Your task to perform on an android device: Open Android settings Image 0: 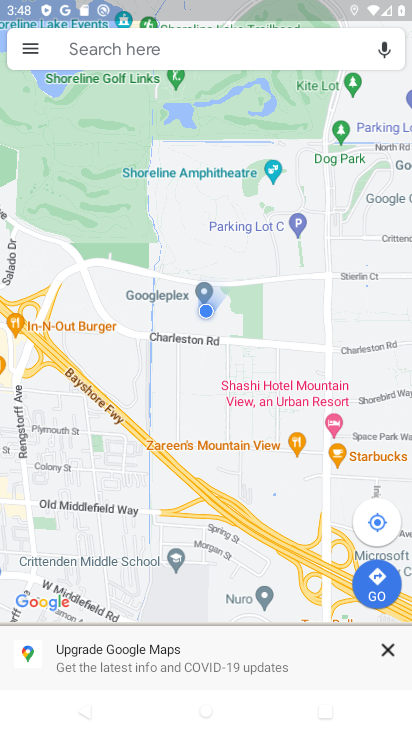
Step 0: press home button
Your task to perform on an android device: Open Android settings Image 1: 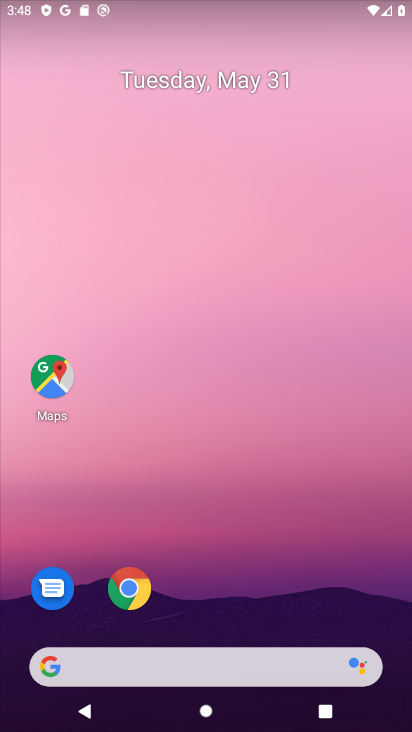
Step 1: drag from (192, 611) to (326, 29)
Your task to perform on an android device: Open Android settings Image 2: 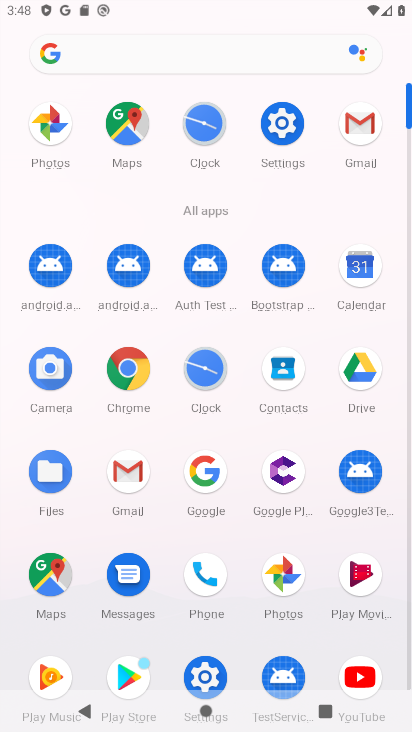
Step 2: click (288, 119)
Your task to perform on an android device: Open Android settings Image 3: 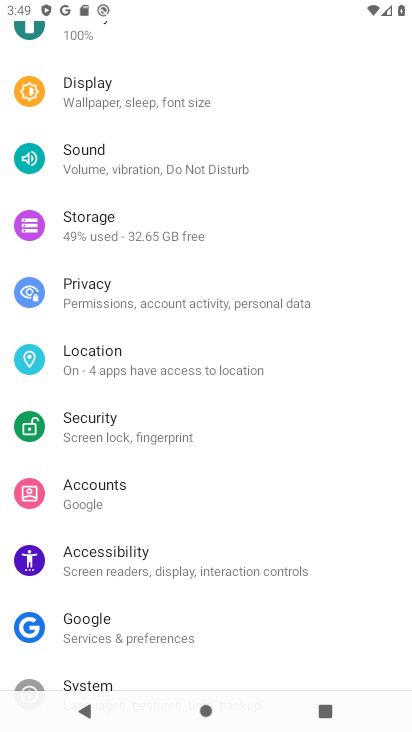
Step 3: task complete